Your task to perform on an android device: Open settings Image 0: 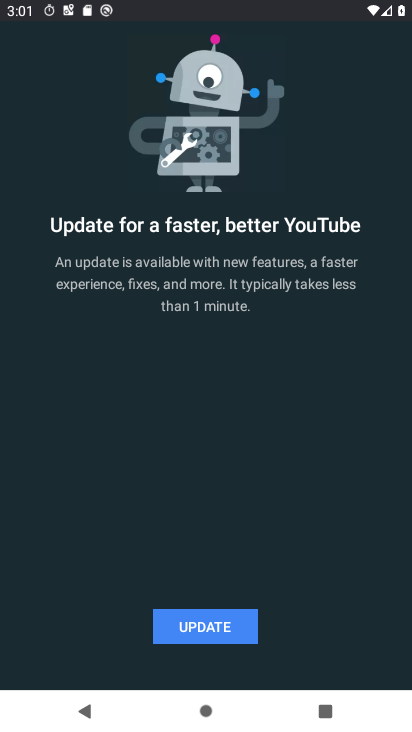
Step 0: press home button
Your task to perform on an android device: Open settings Image 1: 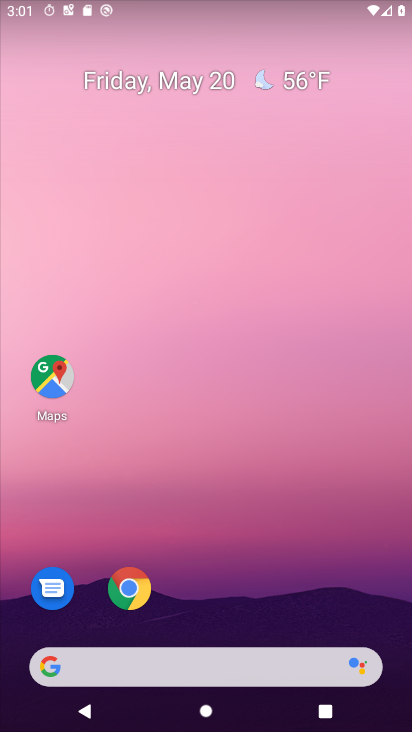
Step 1: drag from (9, 727) to (150, 161)
Your task to perform on an android device: Open settings Image 2: 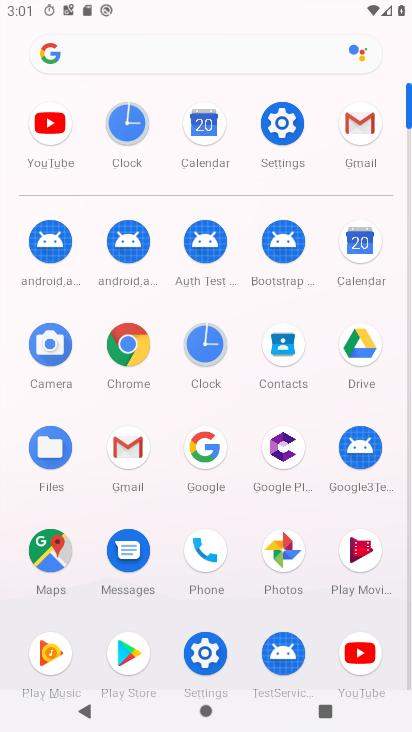
Step 2: click (271, 139)
Your task to perform on an android device: Open settings Image 3: 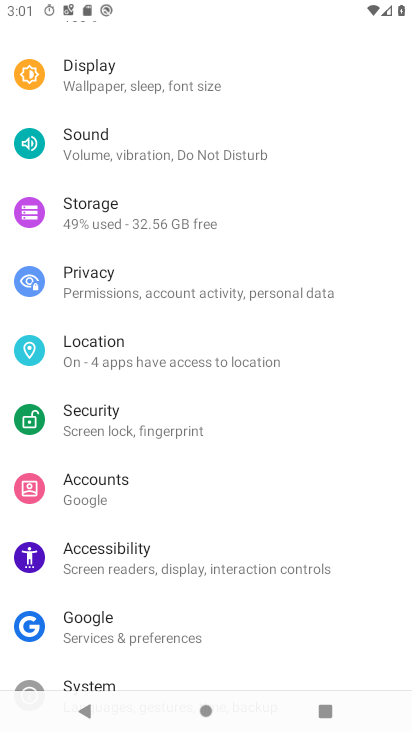
Step 3: task complete